Your task to perform on an android device: snooze an email in the gmail app Image 0: 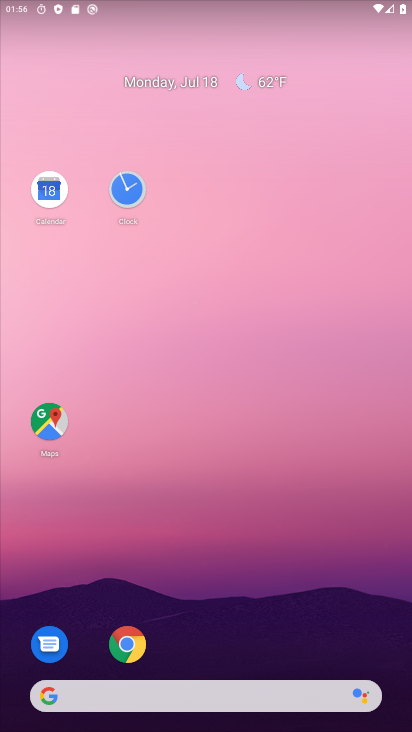
Step 0: drag from (279, 656) to (370, 92)
Your task to perform on an android device: snooze an email in the gmail app Image 1: 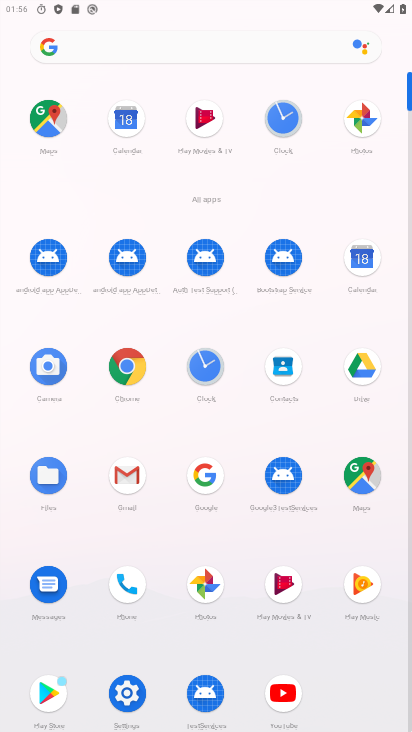
Step 1: drag from (138, 470) to (230, 198)
Your task to perform on an android device: snooze an email in the gmail app Image 2: 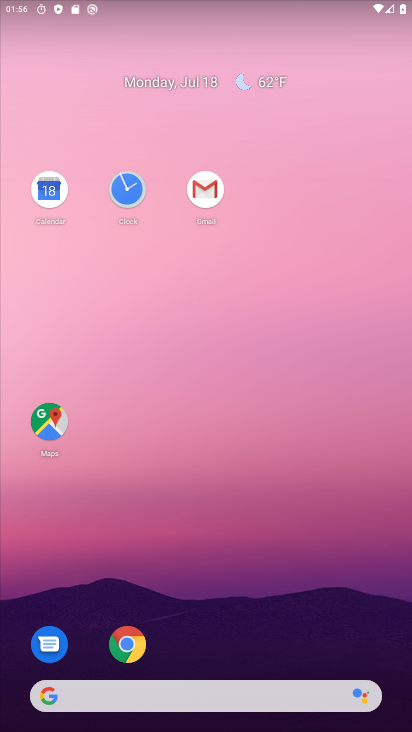
Step 2: click (210, 198)
Your task to perform on an android device: snooze an email in the gmail app Image 3: 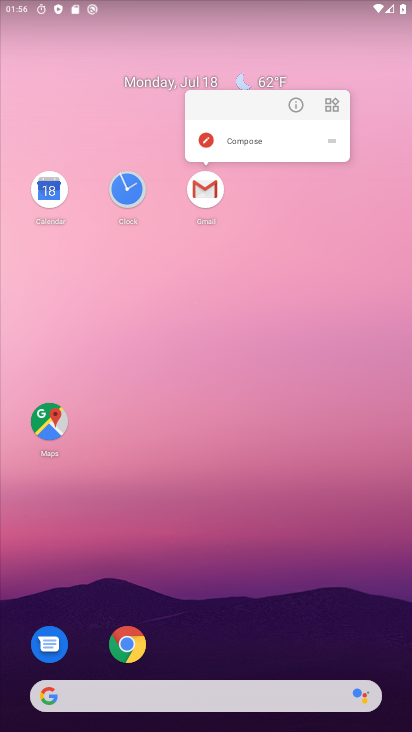
Step 3: click (203, 190)
Your task to perform on an android device: snooze an email in the gmail app Image 4: 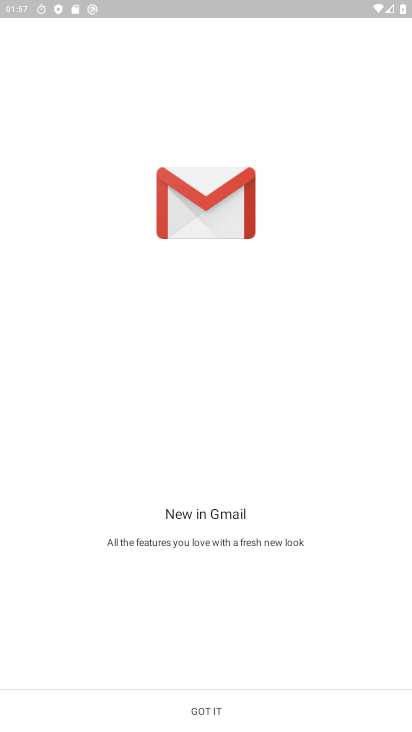
Step 4: click (118, 711)
Your task to perform on an android device: snooze an email in the gmail app Image 5: 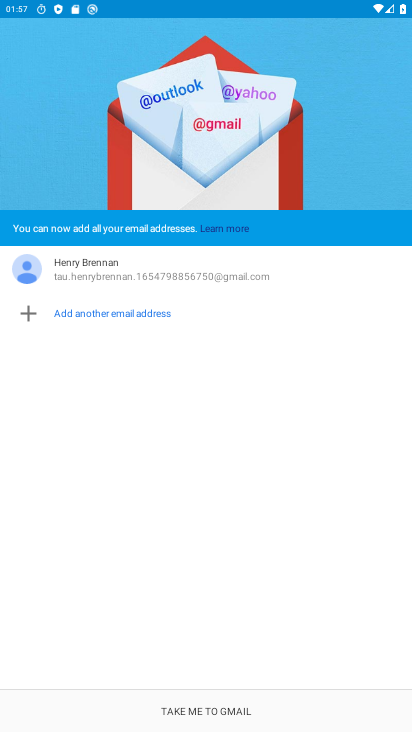
Step 5: click (294, 716)
Your task to perform on an android device: snooze an email in the gmail app Image 6: 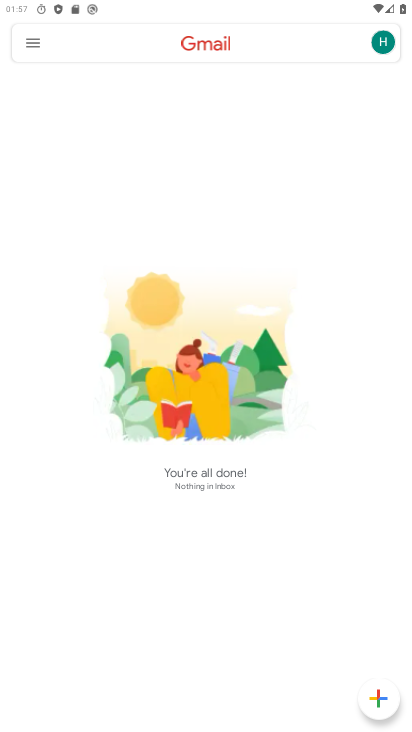
Step 6: click (31, 48)
Your task to perform on an android device: snooze an email in the gmail app Image 7: 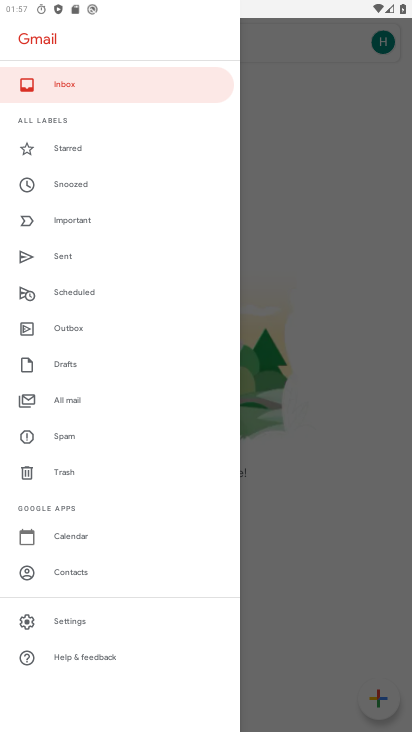
Step 7: click (107, 386)
Your task to perform on an android device: snooze an email in the gmail app Image 8: 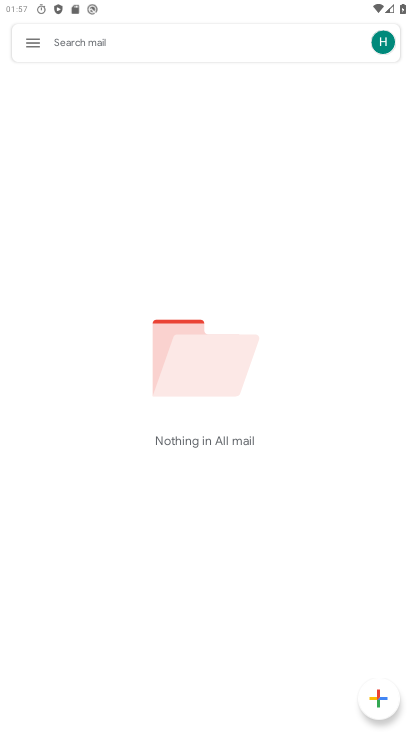
Step 8: task complete